Your task to perform on an android device: turn on the 24-hour format for clock Image 0: 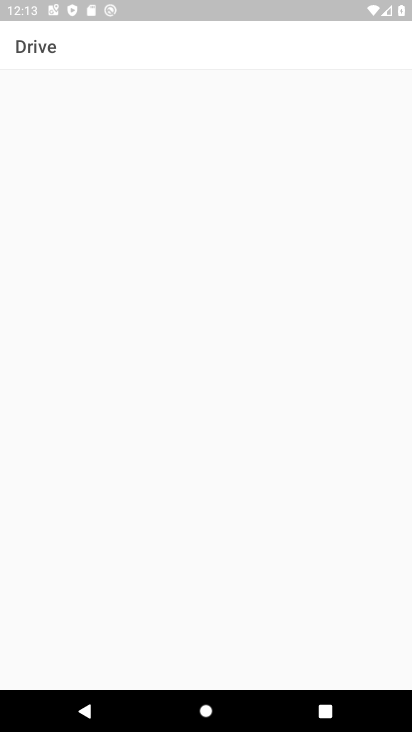
Step 0: press home button
Your task to perform on an android device: turn on the 24-hour format for clock Image 1: 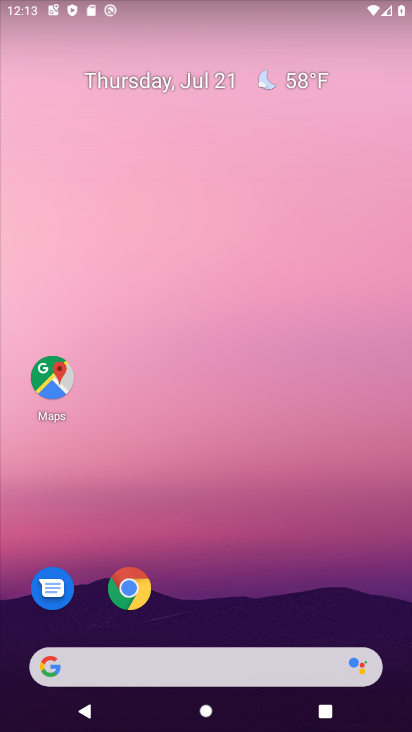
Step 1: drag from (214, 570) to (181, 15)
Your task to perform on an android device: turn on the 24-hour format for clock Image 2: 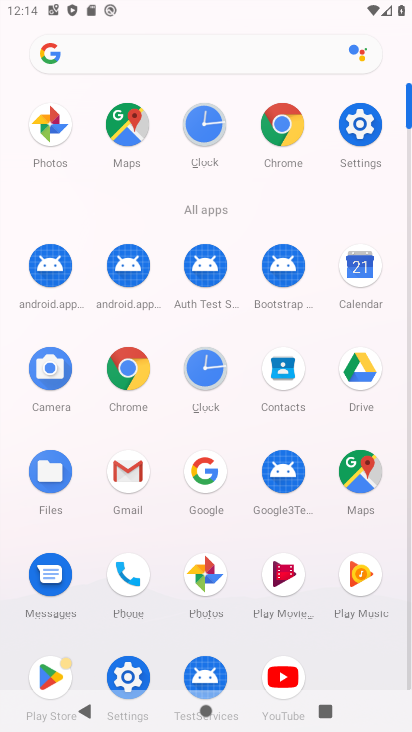
Step 2: click (119, 660)
Your task to perform on an android device: turn on the 24-hour format for clock Image 3: 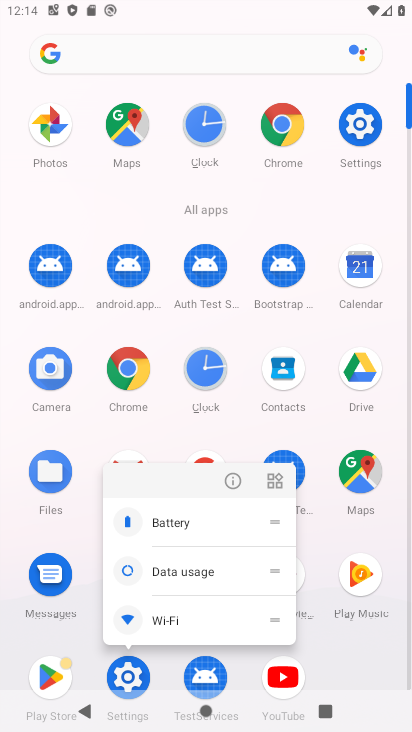
Step 3: click (133, 674)
Your task to perform on an android device: turn on the 24-hour format for clock Image 4: 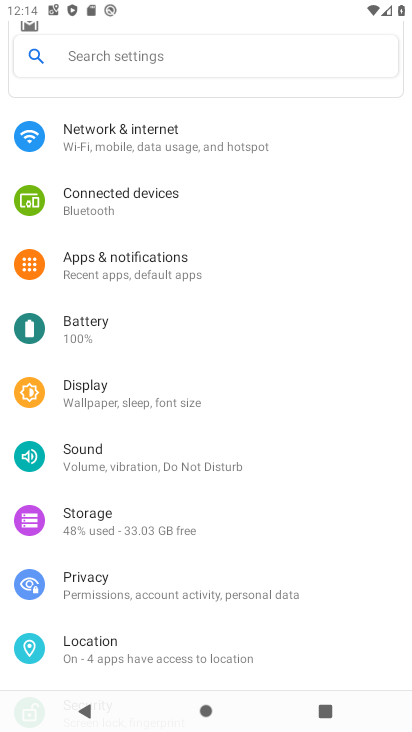
Step 4: drag from (107, 605) to (118, 468)
Your task to perform on an android device: turn on the 24-hour format for clock Image 5: 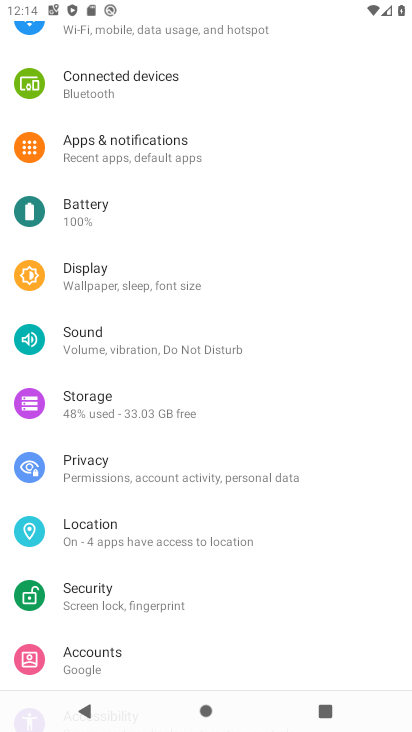
Step 5: drag from (100, 609) to (119, 445)
Your task to perform on an android device: turn on the 24-hour format for clock Image 6: 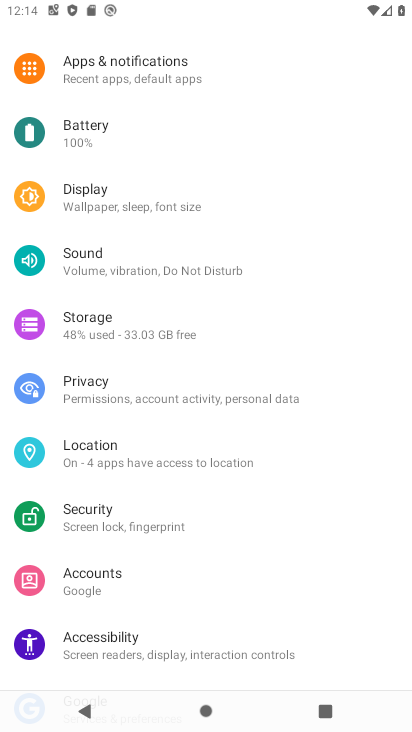
Step 6: drag from (111, 607) to (130, 339)
Your task to perform on an android device: turn on the 24-hour format for clock Image 7: 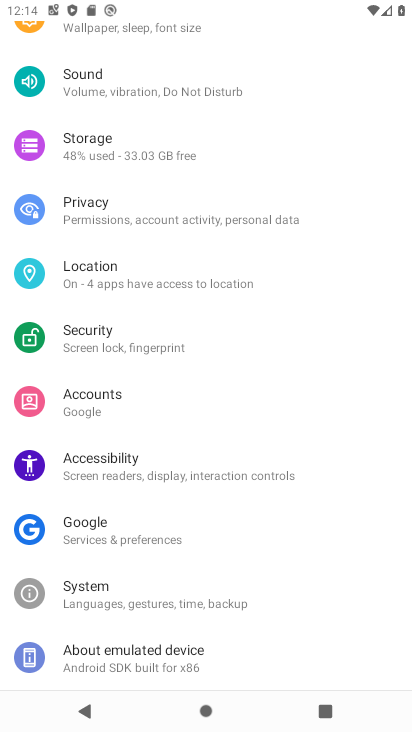
Step 7: click (101, 598)
Your task to perform on an android device: turn on the 24-hour format for clock Image 8: 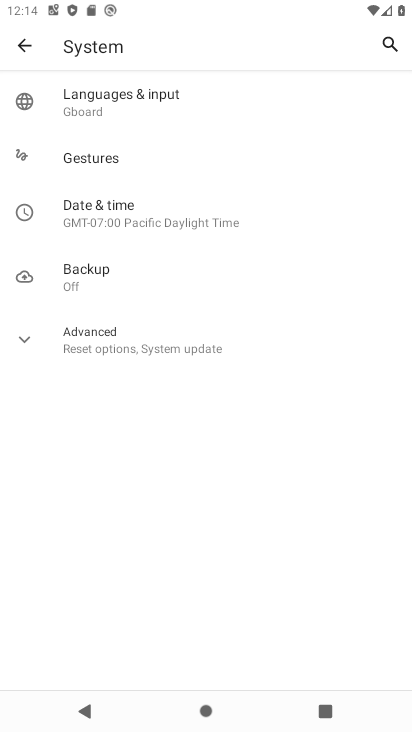
Step 8: click (151, 222)
Your task to perform on an android device: turn on the 24-hour format for clock Image 9: 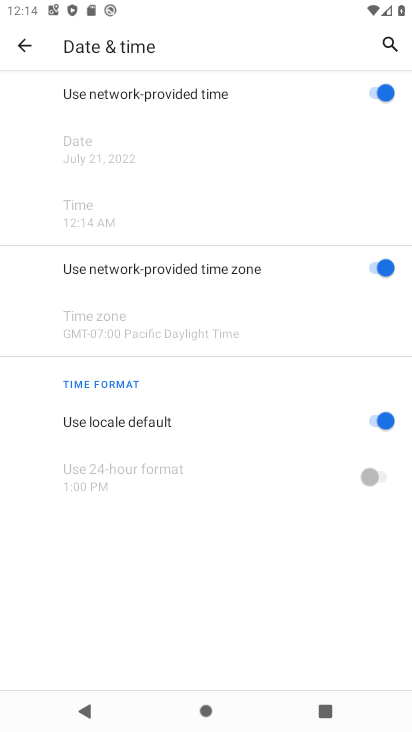
Step 9: click (339, 422)
Your task to perform on an android device: turn on the 24-hour format for clock Image 10: 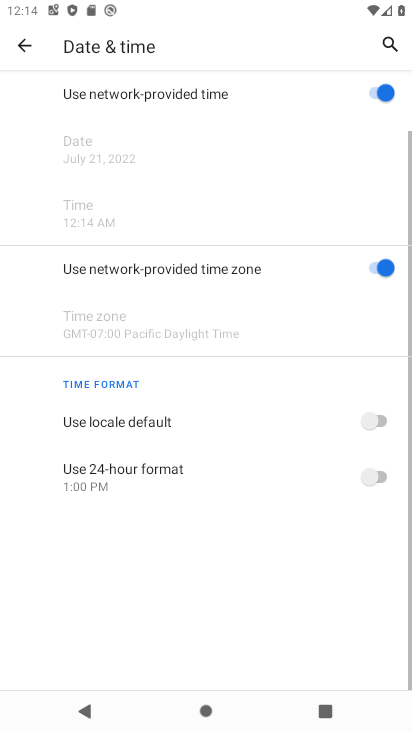
Step 10: click (395, 457)
Your task to perform on an android device: turn on the 24-hour format for clock Image 11: 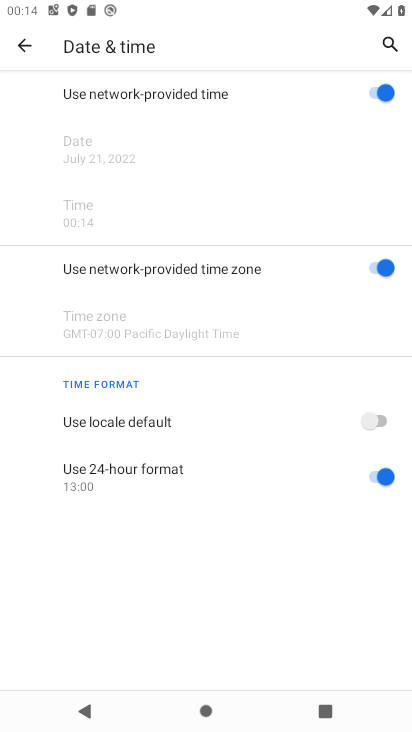
Step 11: task complete